Your task to perform on an android device: Search for seafood restaurants on Google Maps Image 0: 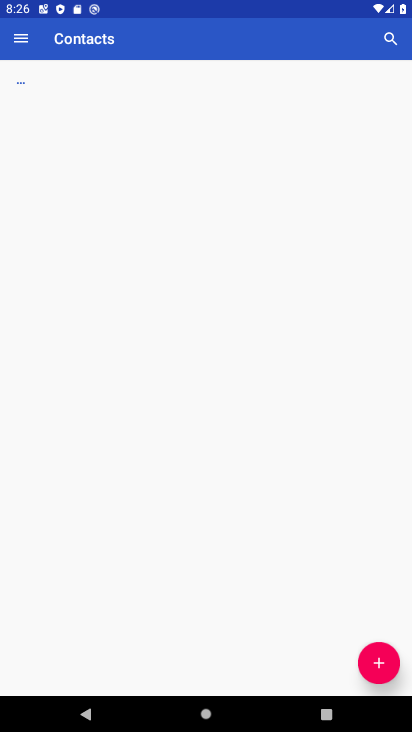
Step 0: drag from (230, 725) to (231, 156)
Your task to perform on an android device: Search for seafood restaurants on Google Maps Image 1: 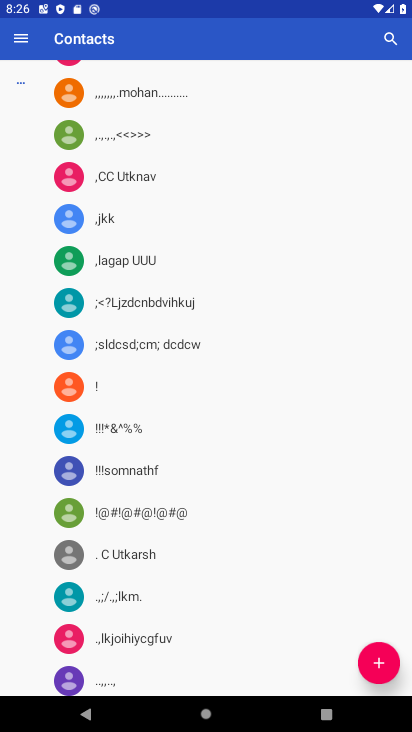
Step 1: press home button
Your task to perform on an android device: Search for seafood restaurants on Google Maps Image 2: 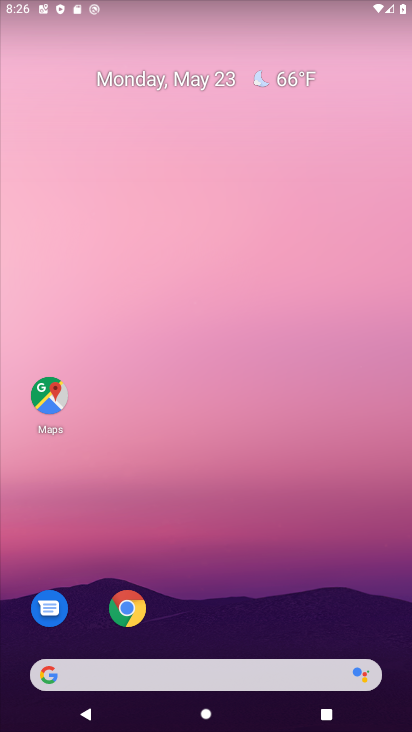
Step 2: drag from (240, 717) to (247, 116)
Your task to perform on an android device: Search for seafood restaurants on Google Maps Image 3: 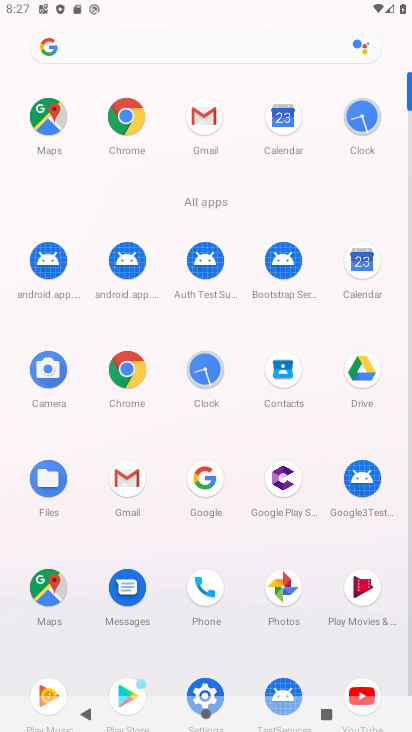
Step 3: click (49, 579)
Your task to perform on an android device: Search for seafood restaurants on Google Maps Image 4: 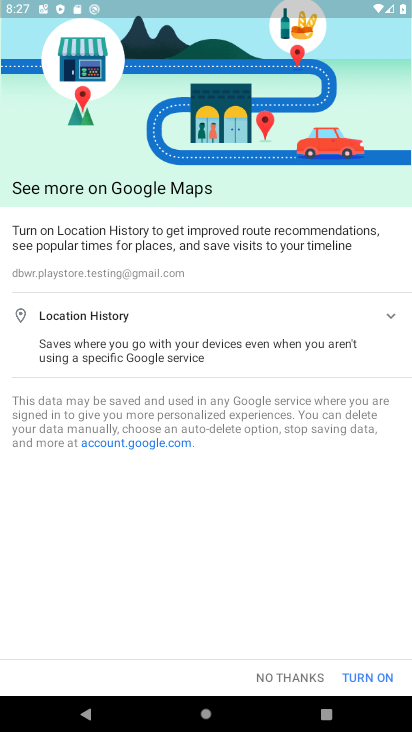
Step 4: click (302, 673)
Your task to perform on an android device: Search for seafood restaurants on Google Maps Image 5: 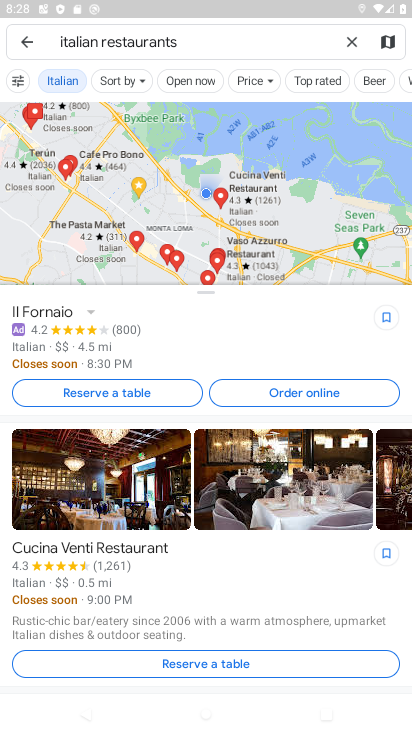
Step 5: click (351, 40)
Your task to perform on an android device: Search for seafood restaurants on Google Maps Image 6: 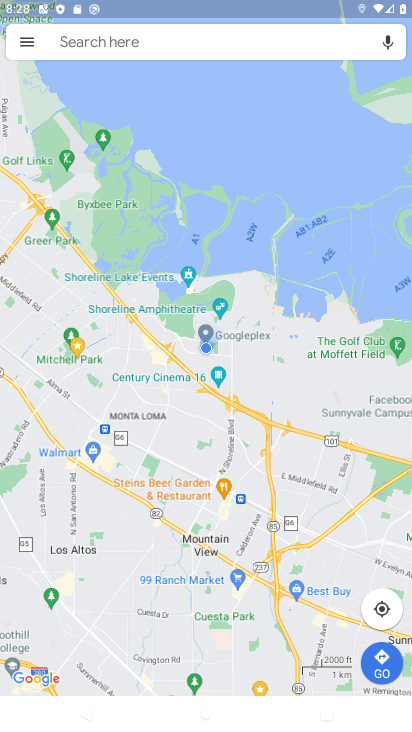
Step 6: click (165, 43)
Your task to perform on an android device: Search for seafood restaurants on Google Maps Image 7: 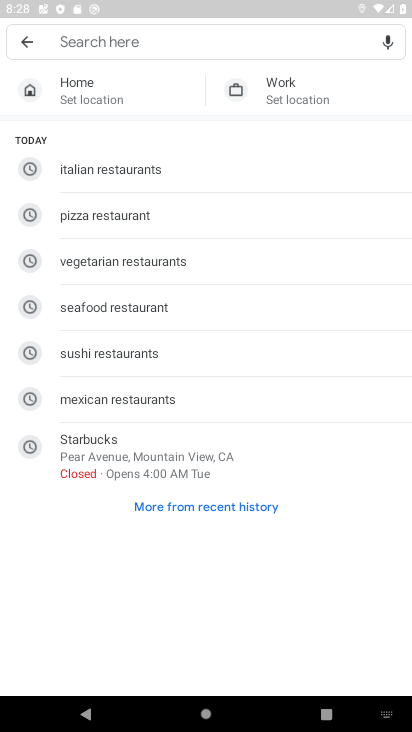
Step 7: type "seafood restaurants"
Your task to perform on an android device: Search for seafood restaurants on Google Maps Image 8: 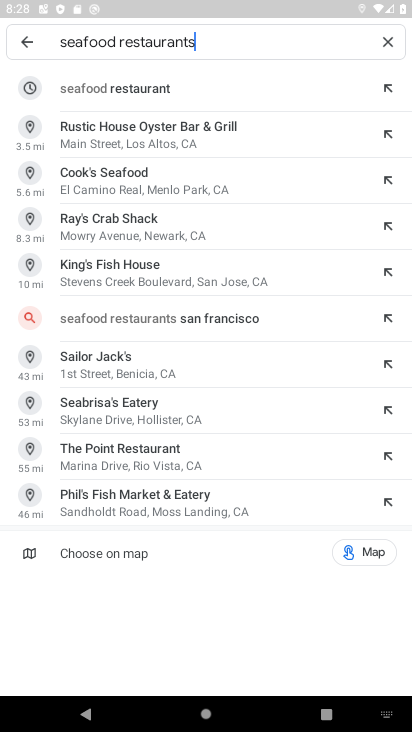
Step 8: click (110, 85)
Your task to perform on an android device: Search for seafood restaurants on Google Maps Image 9: 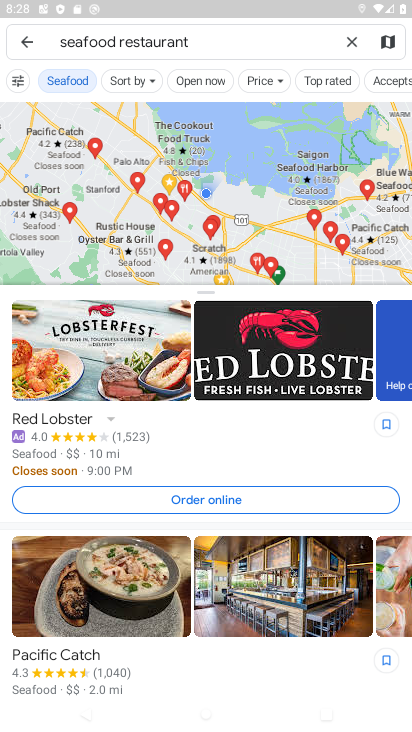
Step 9: task complete